Your task to perform on an android device: turn on the 12-hour format for clock Image 0: 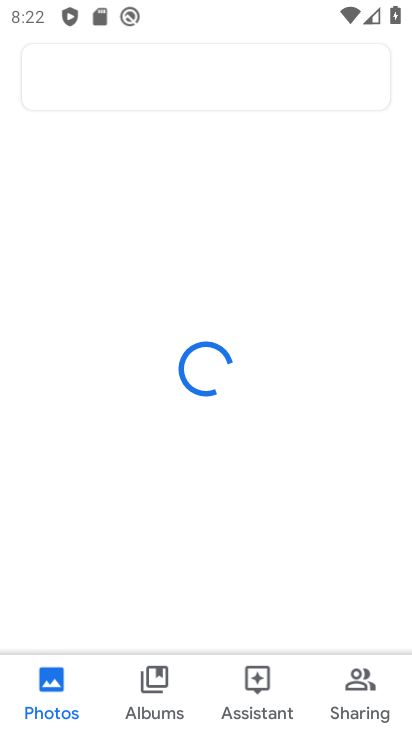
Step 0: press back button
Your task to perform on an android device: turn on the 12-hour format for clock Image 1: 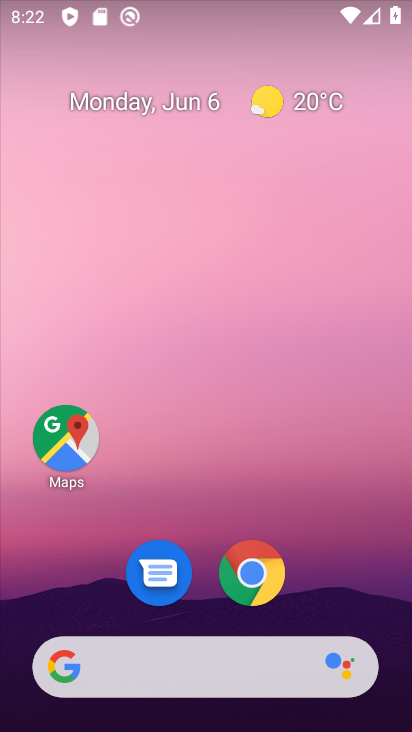
Step 1: drag from (215, 517) to (284, 64)
Your task to perform on an android device: turn on the 12-hour format for clock Image 2: 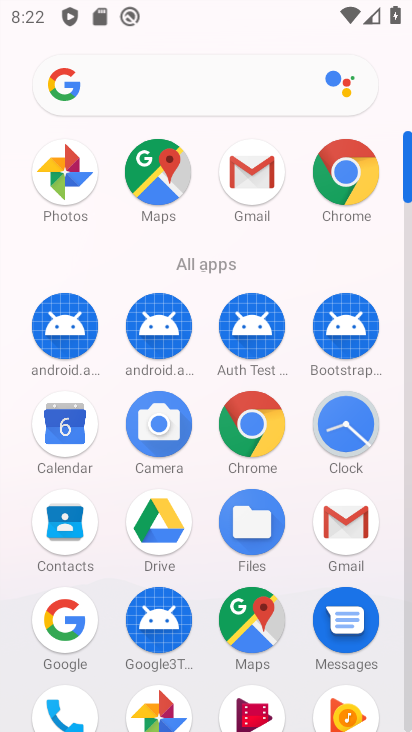
Step 2: click (347, 422)
Your task to perform on an android device: turn on the 12-hour format for clock Image 3: 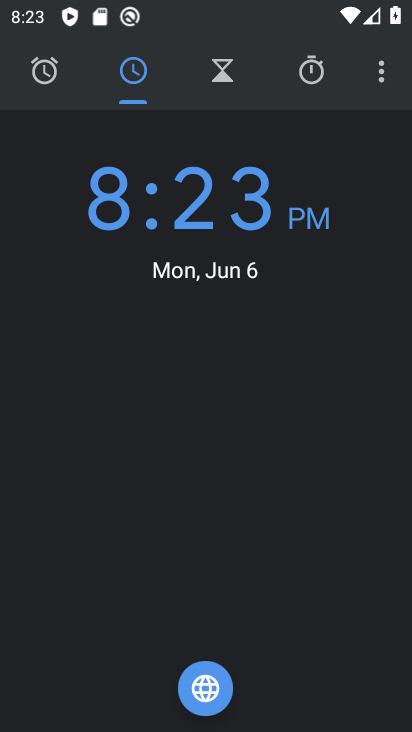
Step 3: click (374, 74)
Your task to perform on an android device: turn on the 12-hour format for clock Image 4: 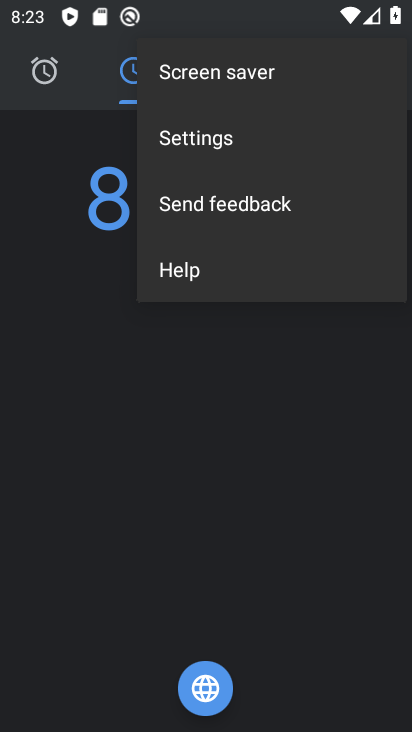
Step 4: click (209, 149)
Your task to perform on an android device: turn on the 12-hour format for clock Image 5: 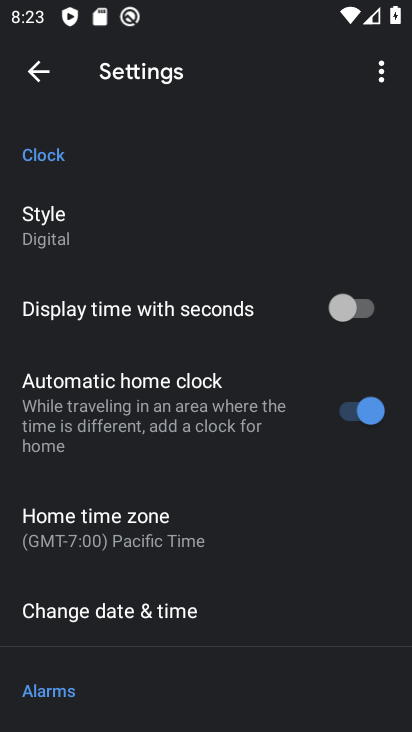
Step 5: click (164, 606)
Your task to perform on an android device: turn on the 12-hour format for clock Image 6: 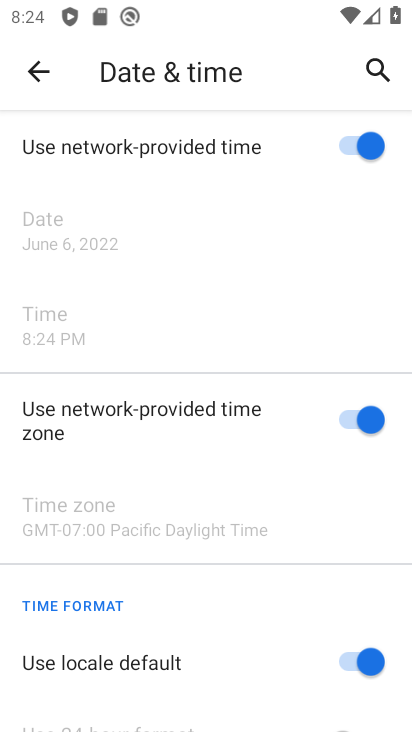
Step 6: task complete